Your task to perform on an android device: open sync settings in chrome Image 0: 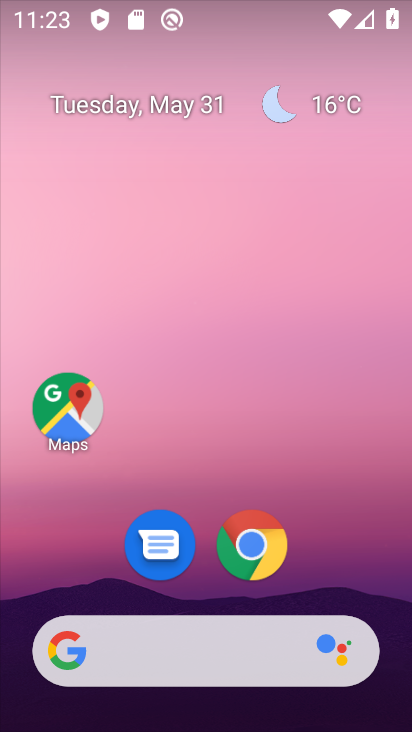
Step 0: click (250, 556)
Your task to perform on an android device: open sync settings in chrome Image 1: 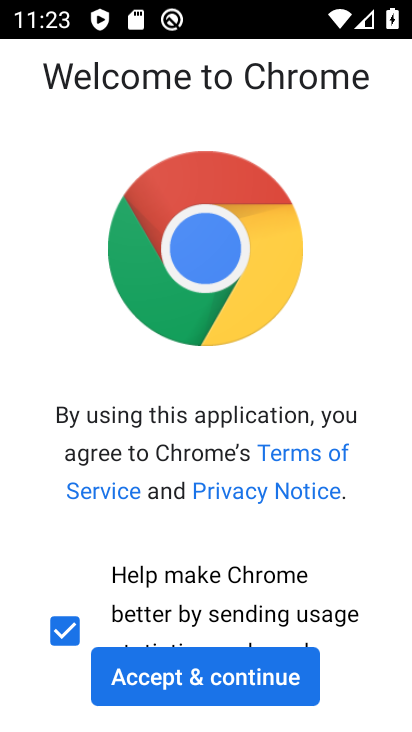
Step 1: click (224, 660)
Your task to perform on an android device: open sync settings in chrome Image 2: 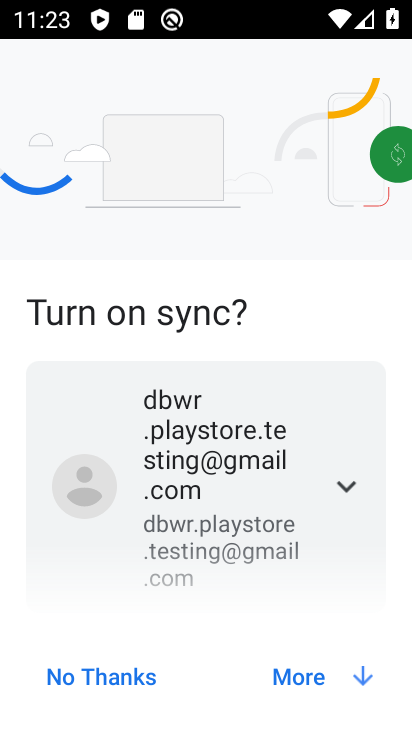
Step 2: click (306, 696)
Your task to perform on an android device: open sync settings in chrome Image 3: 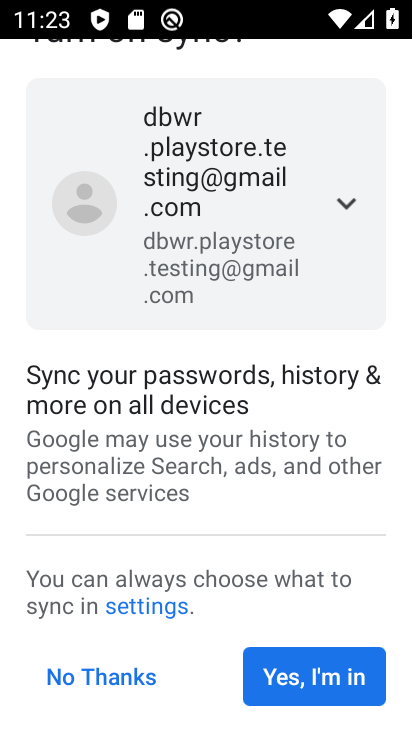
Step 3: click (307, 691)
Your task to perform on an android device: open sync settings in chrome Image 4: 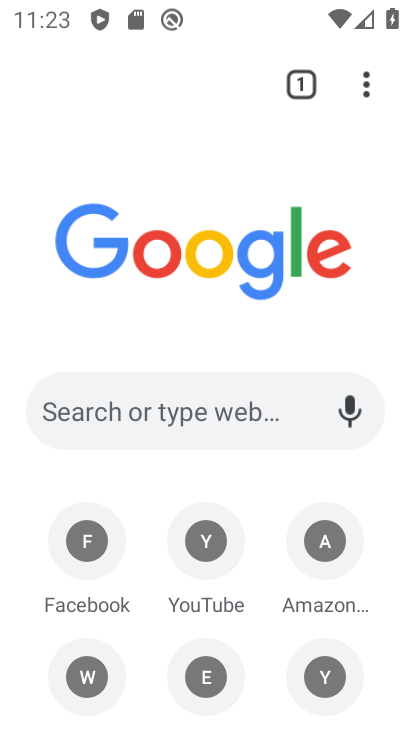
Step 4: drag from (380, 71) to (202, 604)
Your task to perform on an android device: open sync settings in chrome Image 5: 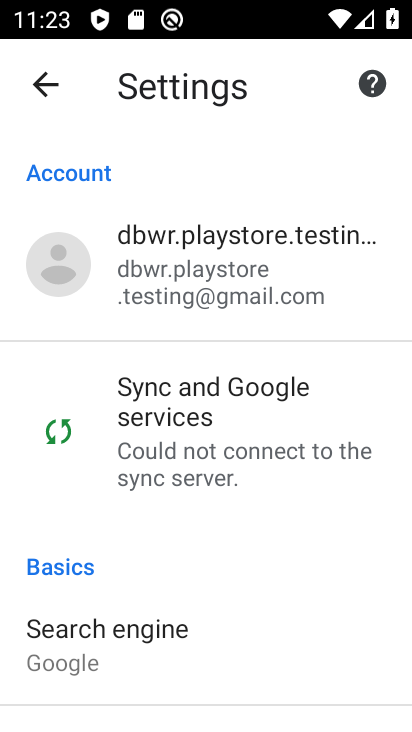
Step 5: click (268, 448)
Your task to perform on an android device: open sync settings in chrome Image 6: 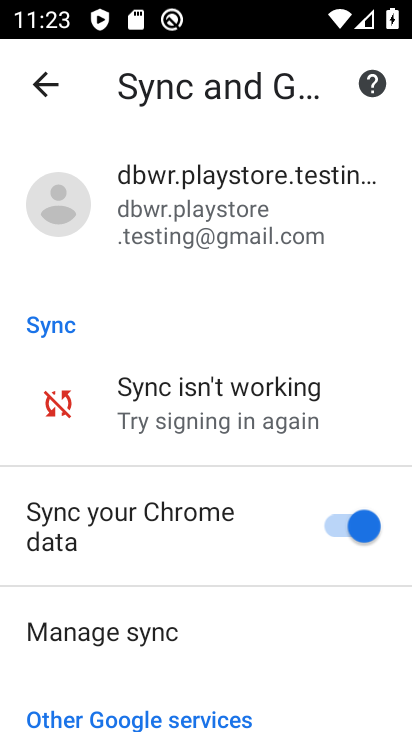
Step 6: task complete